Your task to perform on an android device: toggle sleep mode Image 0: 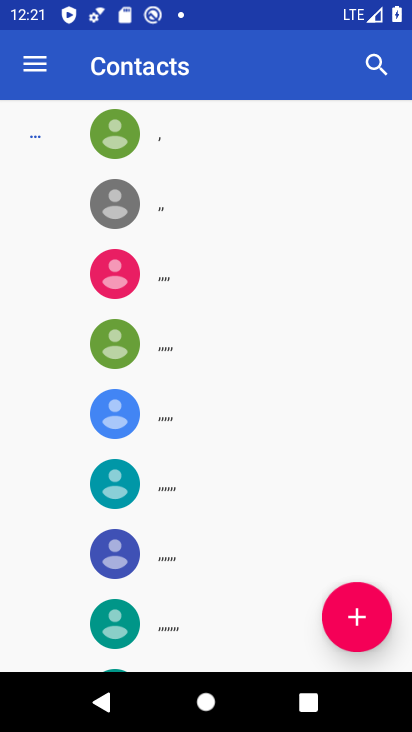
Step 0: press home button
Your task to perform on an android device: toggle sleep mode Image 1: 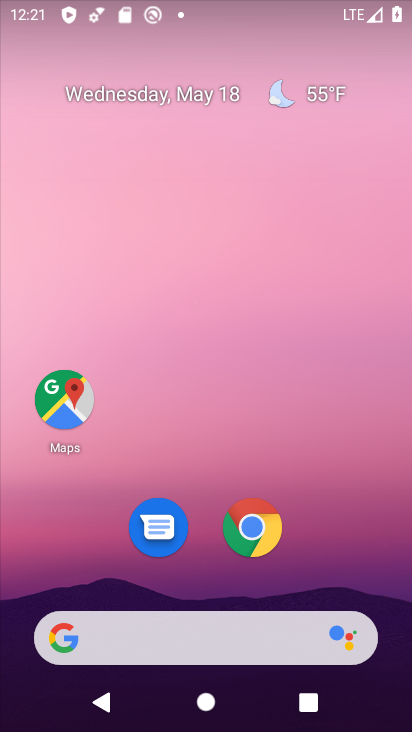
Step 1: drag from (330, 479) to (217, 53)
Your task to perform on an android device: toggle sleep mode Image 2: 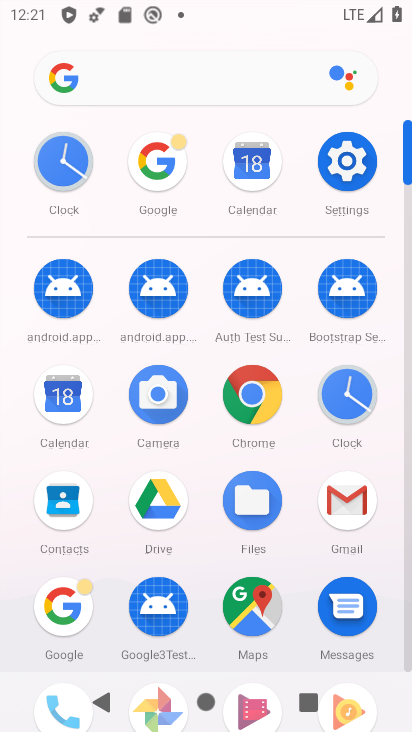
Step 2: click (340, 150)
Your task to perform on an android device: toggle sleep mode Image 3: 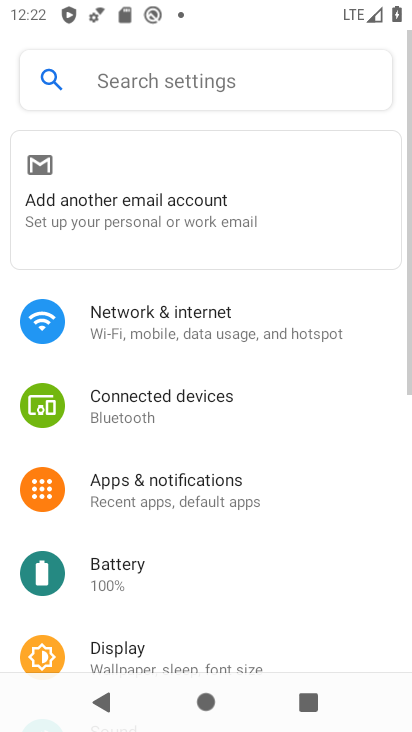
Step 3: click (177, 641)
Your task to perform on an android device: toggle sleep mode Image 4: 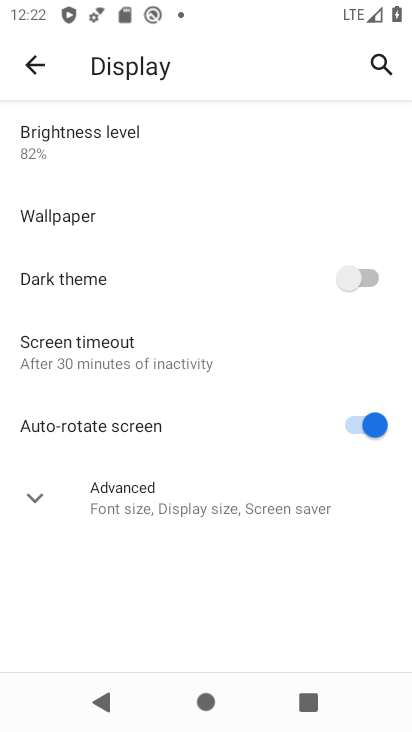
Step 4: task complete